Your task to perform on an android device: View the shopping cart on bestbuy.com. Search for razer blade on bestbuy.com, select the first entry, add it to the cart, then select checkout. Image 0: 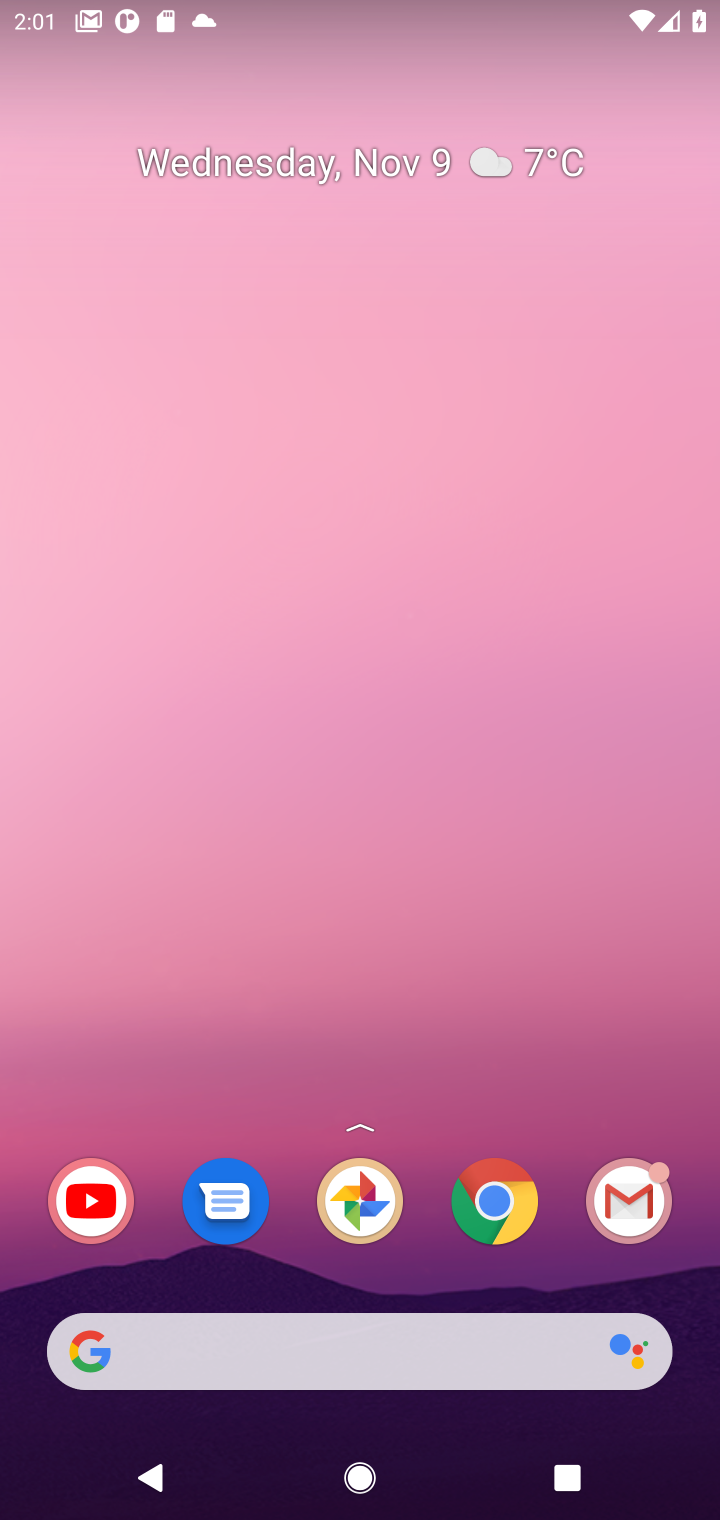
Step 0: click (348, 1341)
Your task to perform on an android device: View the shopping cart on bestbuy.com. Search for razer blade on bestbuy.com, select the first entry, add it to the cart, then select checkout. Image 1: 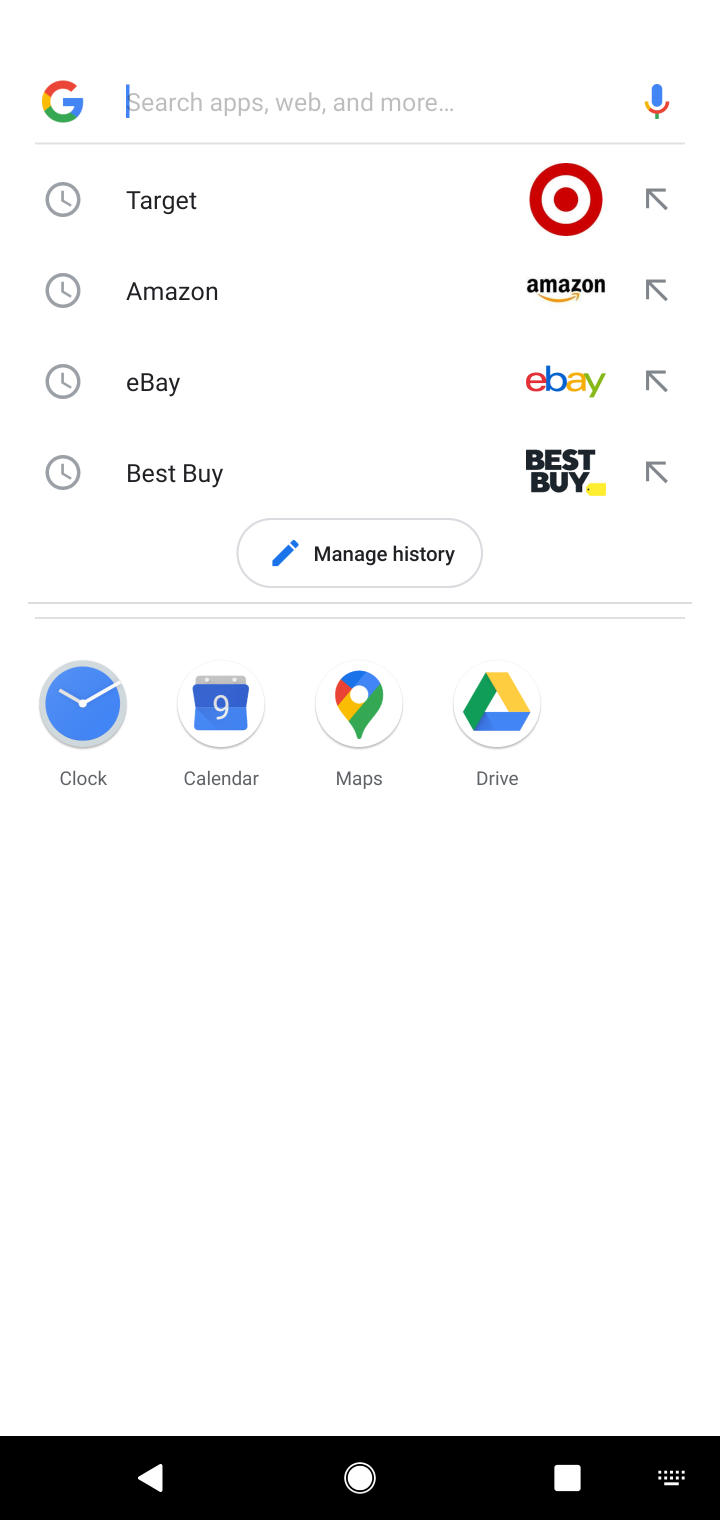
Step 1: click (201, 472)
Your task to perform on an android device: View the shopping cart on bestbuy.com. Search for razer blade on bestbuy.com, select the first entry, add it to the cart, then select checkout. Image 2: 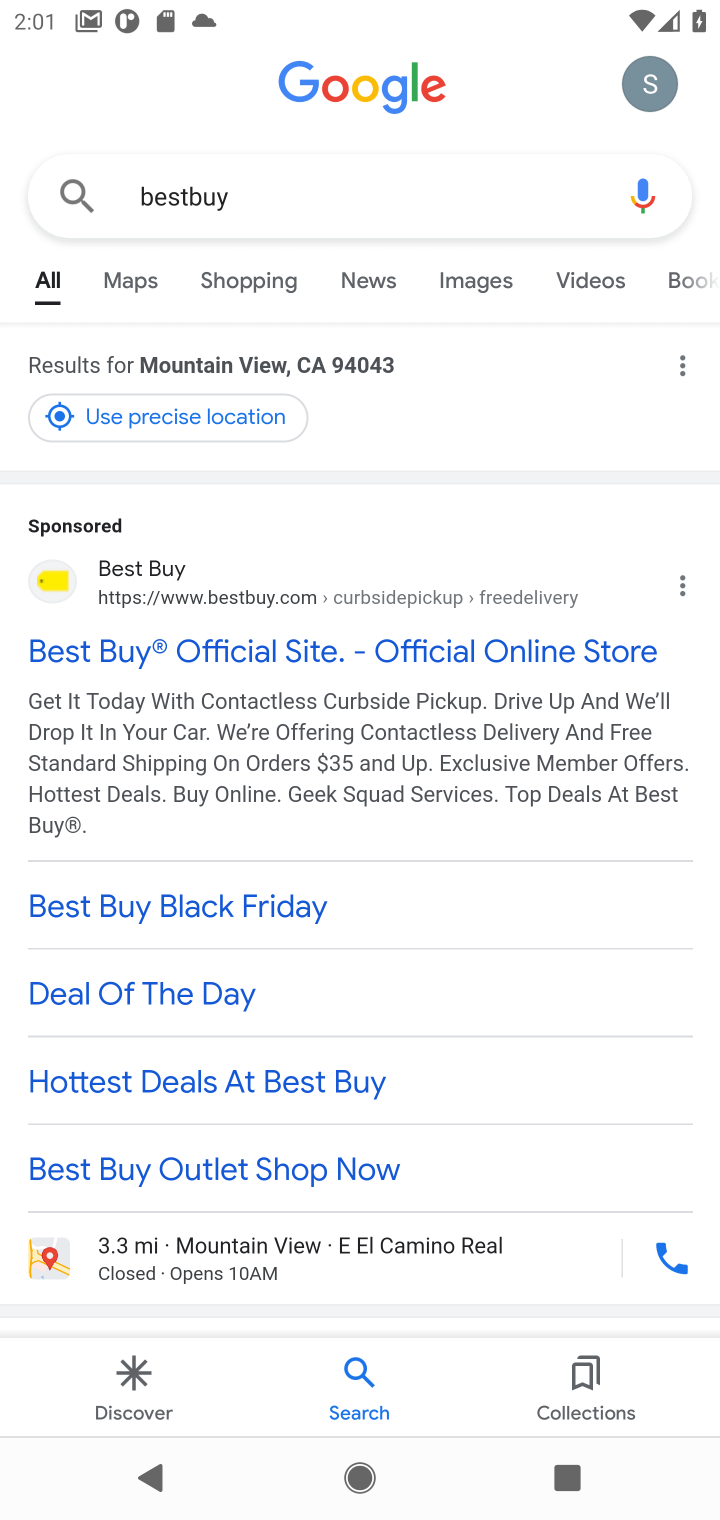
Step 2: click (143, 382)
Your task to perform on an android device: View the shopping cart on bestbuy.com. Search for razer blade on bestbuy.com, select the first entry, add it to the cart, then select checkout. Image 3: 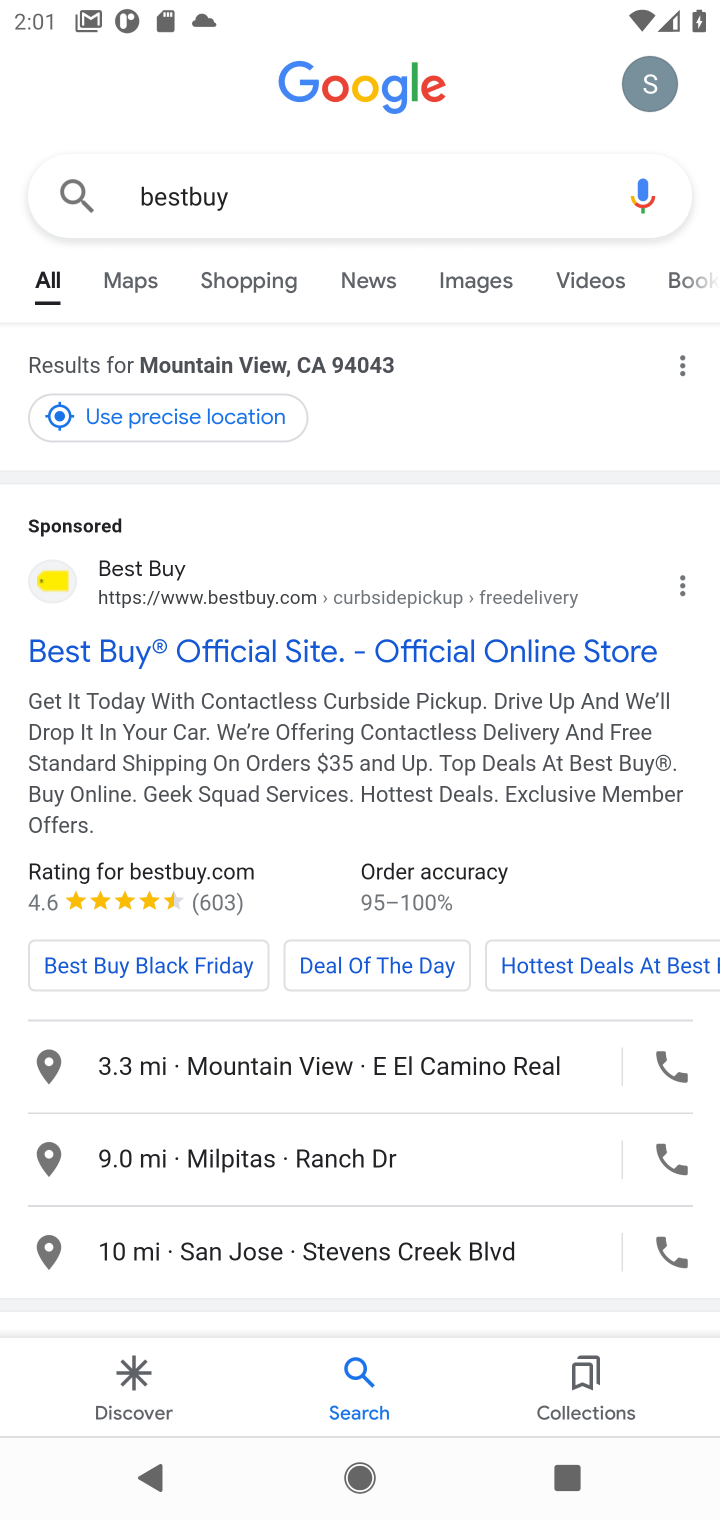
Step 3: click (164, 585)
Your task to perform on an android device: View the shopping cart on bestbuy.com. Search for razer blade on bestbuy.com, select the first entry, add it to the cart, then select checkout. Image 4: 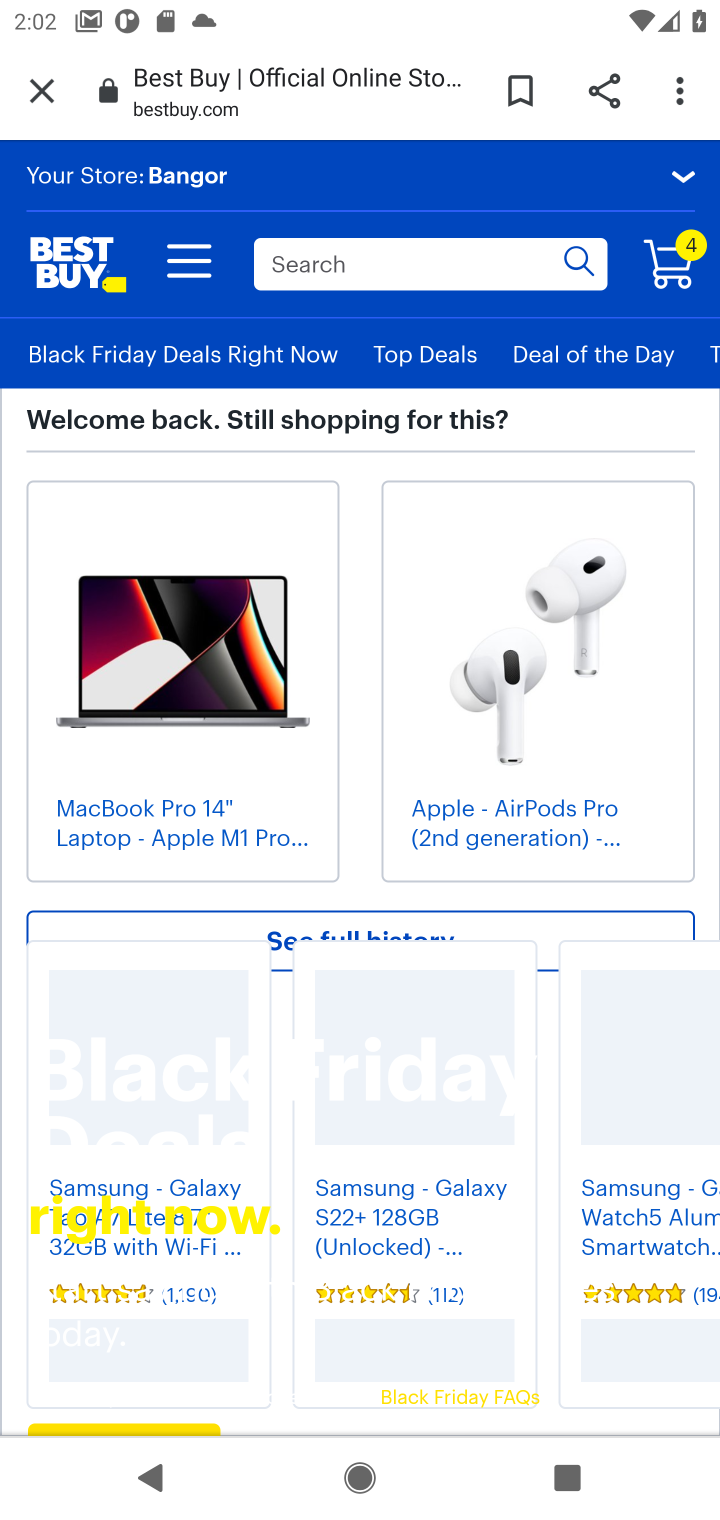
Step 4: click (315, 253)
Your task to perform on an android device: View the shopping cart on bestbuy.com. Search for razer blade on bestbuy.com, select the first entry, add it to the cart, then select checkout. Image 5: 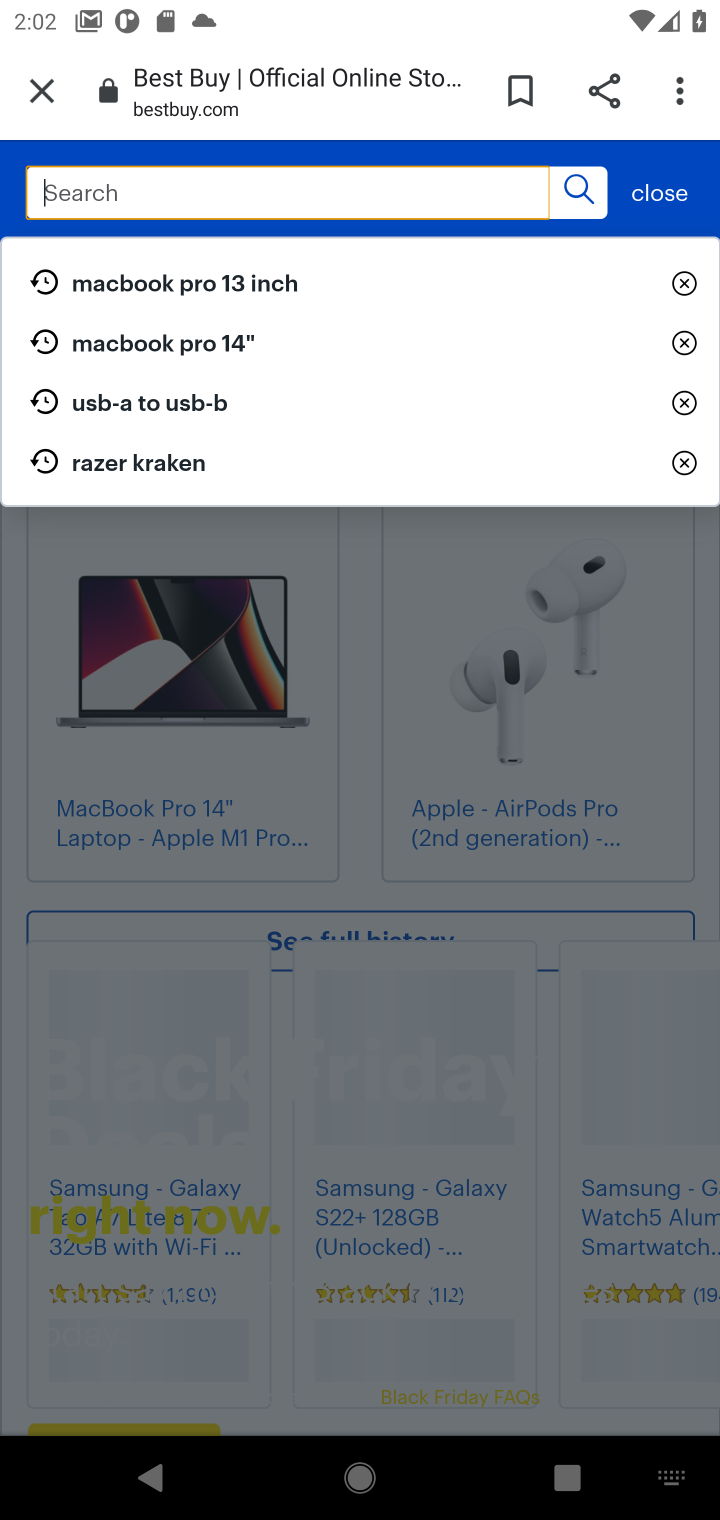
Step 5: type " razer blade"
Your task to perform on an android device: View the shopping cart on bestbuy.com. Search for razer blade on bestbuy.com, select the first entry, add it to the cart, then select checkout. Image 6: 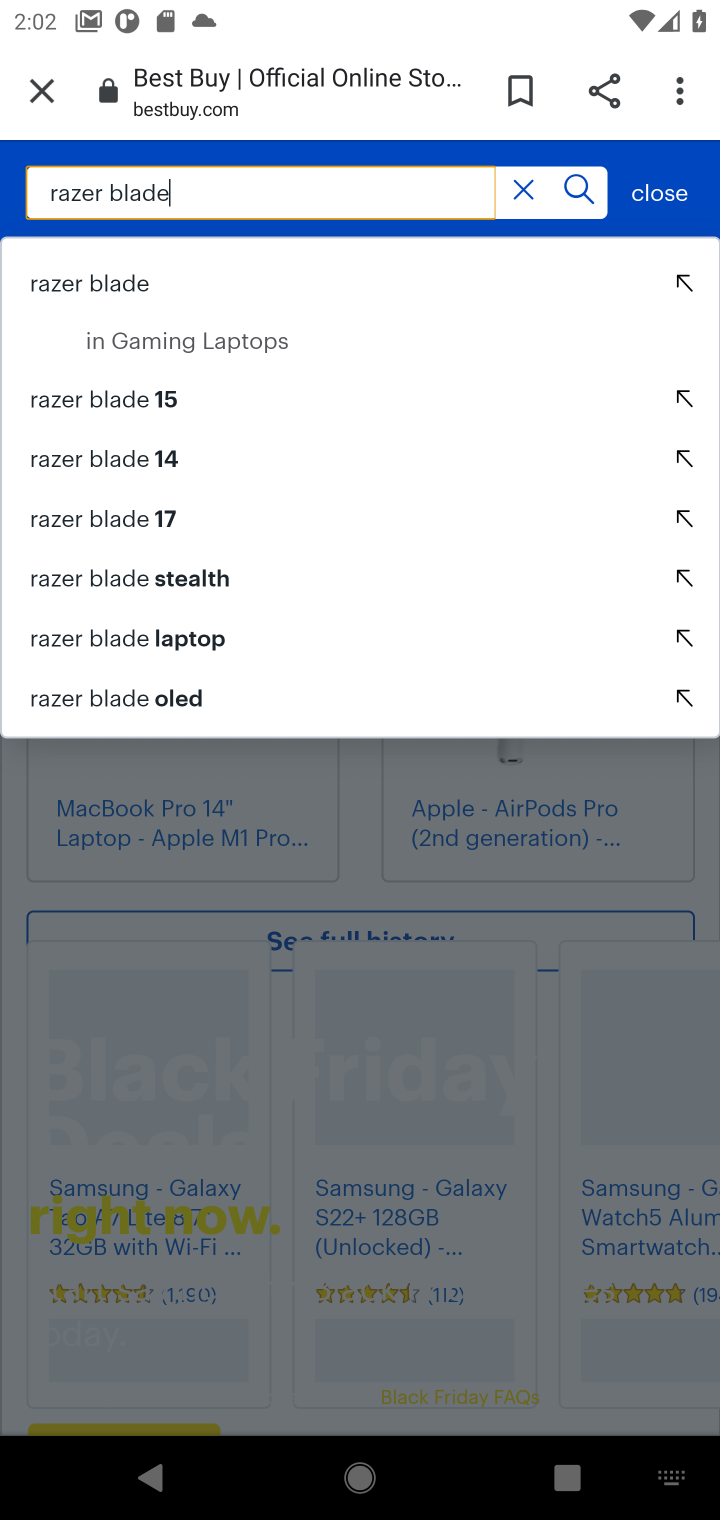
Step 6: click (90, 276)
Your task to perform on an android device: View the shopping cart on bestbuy.com. Search for razer blade on bestbuy.com, select the first entry, add it to the cart, then select checkout. Image 7: 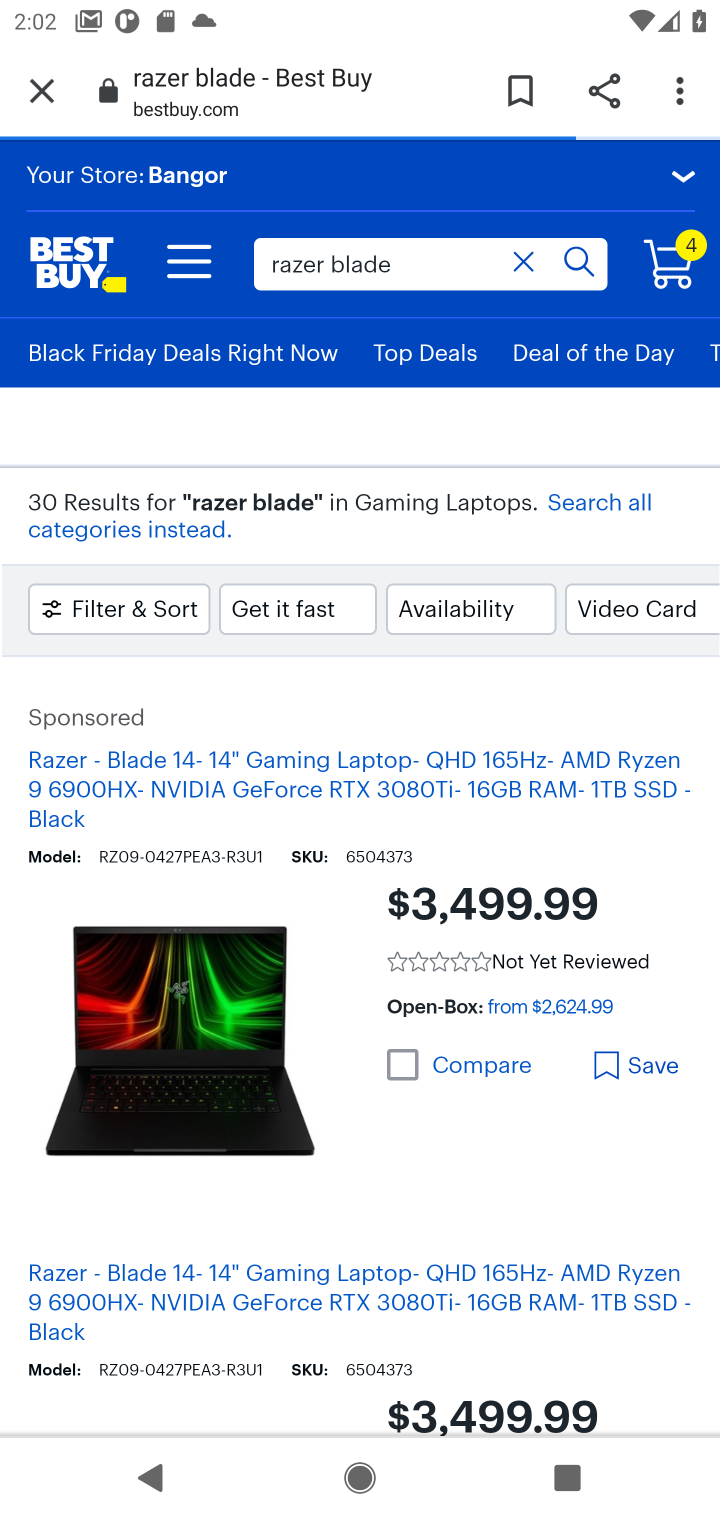
Step 7: click (257, 976)
Your task to perform on an android device: View the shopping cart on bestbuy.com. Search for razer blade on bestbuy.com, select the first entry, add it to the cart, then select checkout. Image 8: 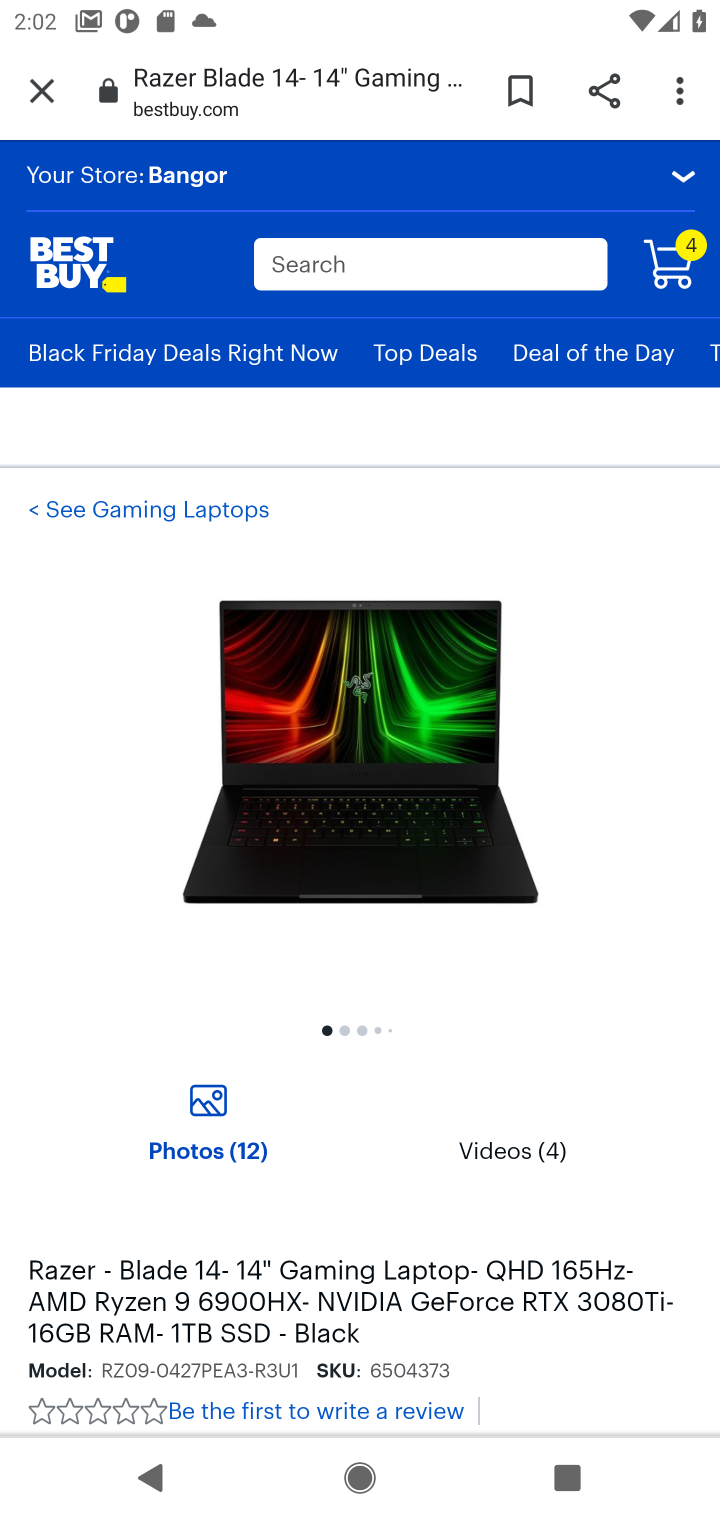
Step 8: drag from (370, 1075) to (369, 720)
Your task to perform on an android device: View the shopping cart on bestbuy.com. Search for razer blade on bestbuy.com, select the first entry, add it to the cart, then select checkout. Image 9: 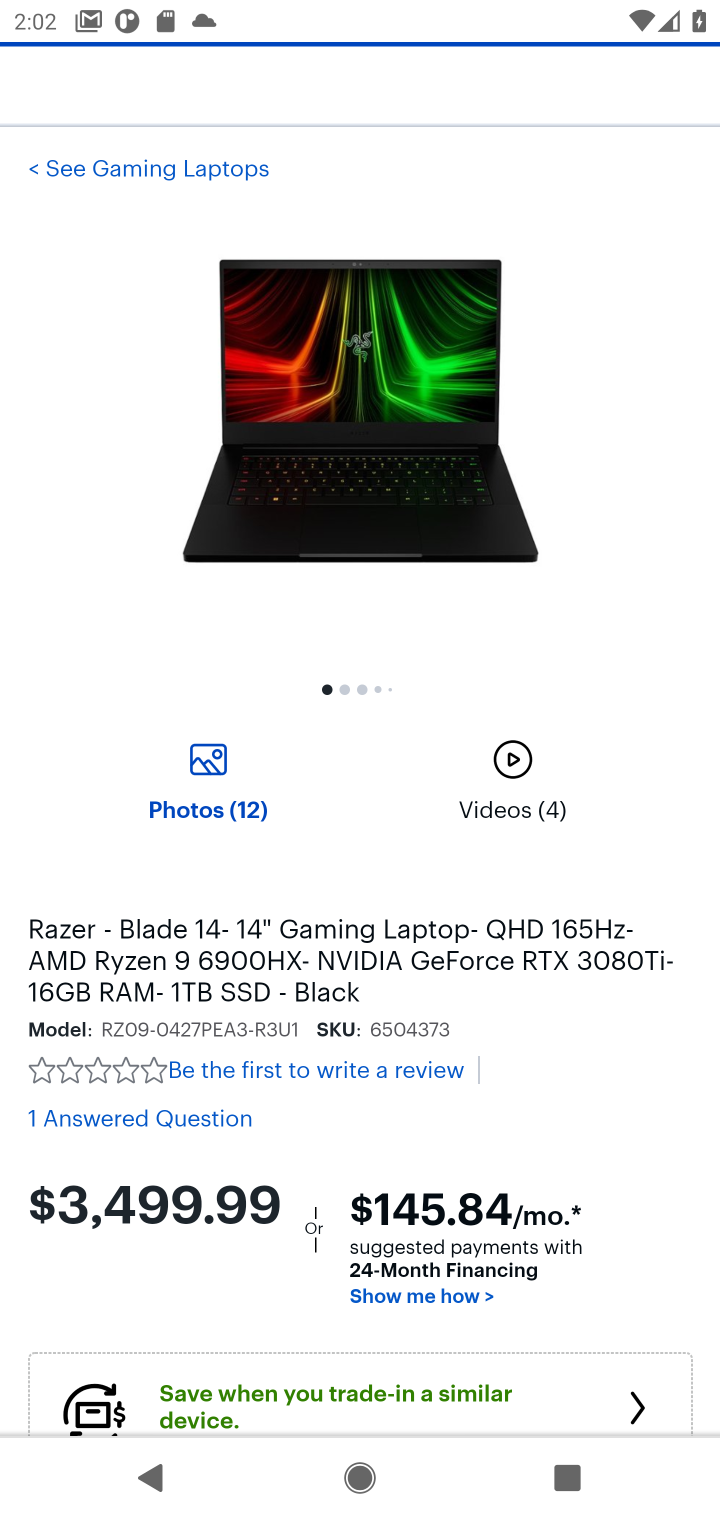
Step 9: drag from (419, 1132) to (419, 933)
Your task to perform on an android device: View the shopping cart on bestbuy.com. Search for razer blade on bestbuy.com, select the first entry, add it to the cart, then select checkout. Image 10: 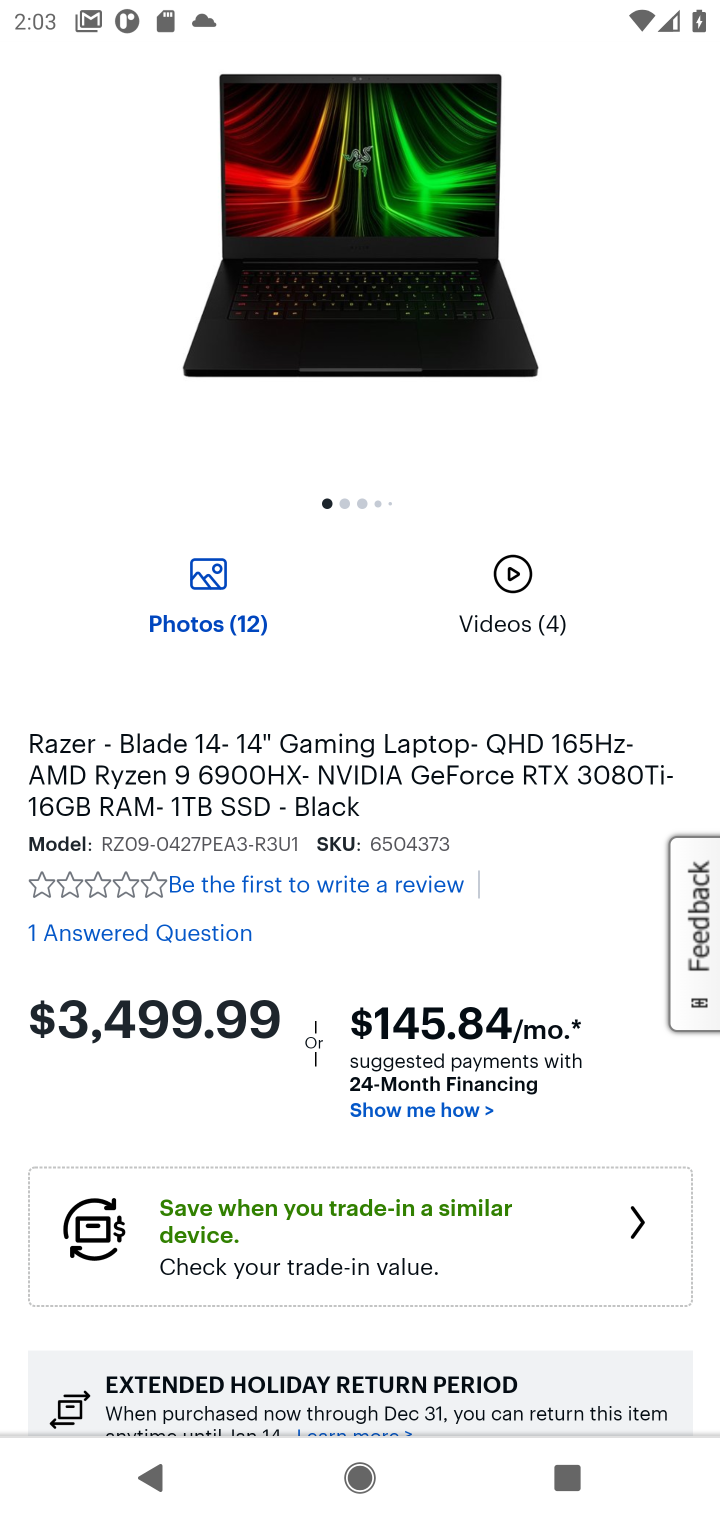
Step 10: drag from (419, 1219) to (431, 801)
Your task to perform on an android device: View the shopping cart on bestbuy.com. Search for razer blade on bestbuy.com, select the first entry, add it to the cart, then select checkout. Image 11: 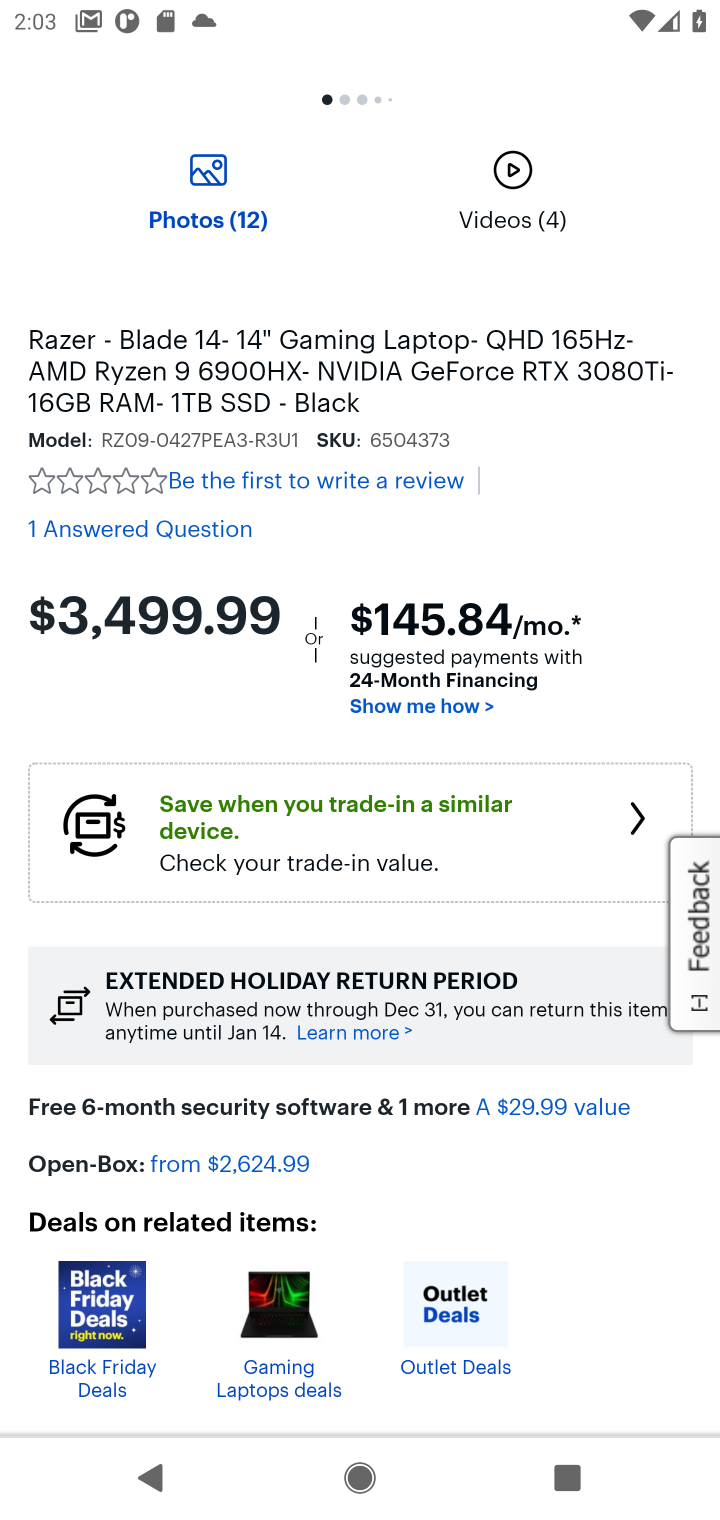
Step 11: drag from (400, 1100) to (407, 724)
Your task to perform on an android device: View the shopping cart on bestbuy.com. Search for razer blade on bestbuy.com, select the first entry, add it to the cart, then select checkout. Image 12: 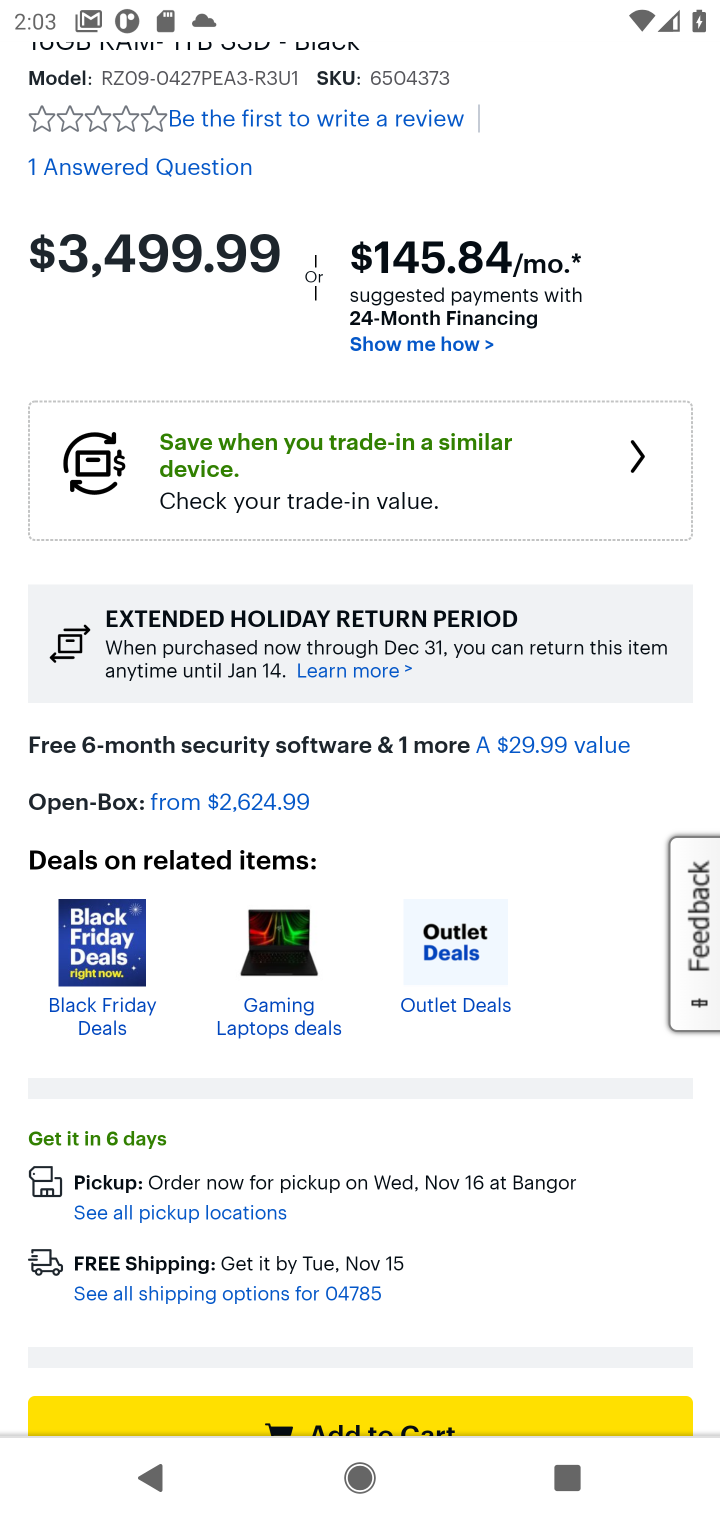
Step 12: click (435, 714)
Your task to perform on an android device: View the shopping cart on bestbuy.com. Search for razer blade on bestbuy.com, select the first entry, add it to the cart, then select checkout. Image 13: 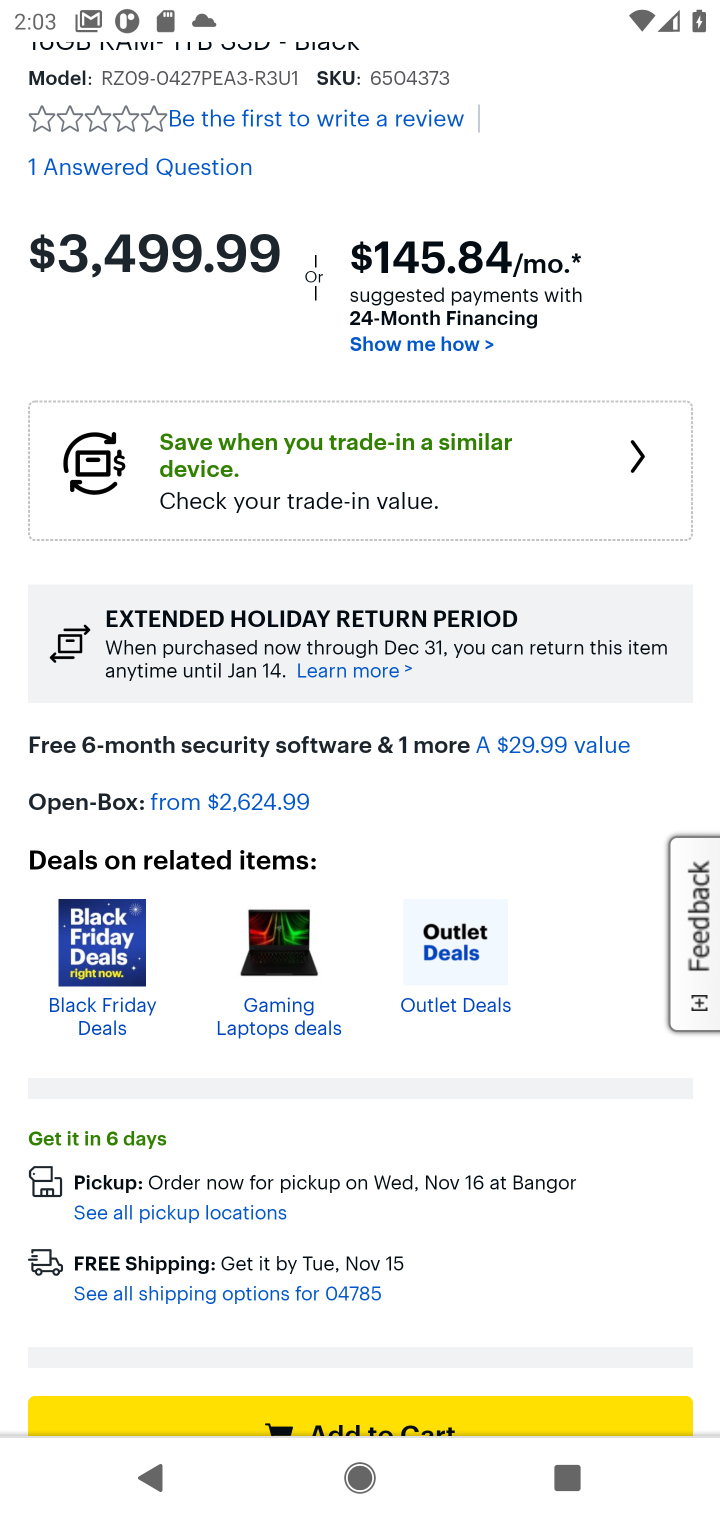
Step 13: click (500, 963)
Your task to perform on an android device: View the shopping cart on bestbuy.com. Search for razer blade on bestbuy.com, select the first entry, add it to the cart, then select checkout. Image 14: 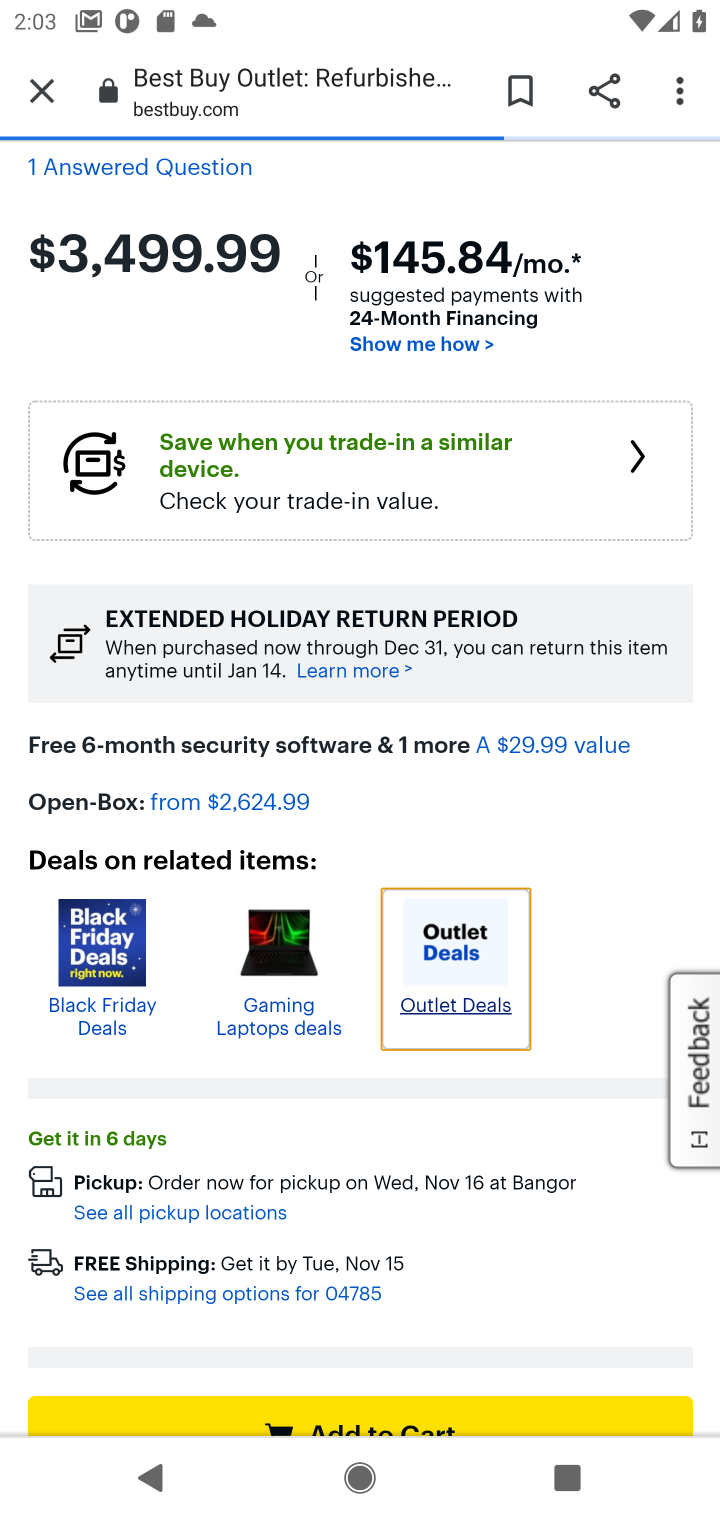
Step 14: click (337, 1420)
Your task to perform on an android device: View the shopping cart on bestbuy.com. Search for razer blade on bestbuy.com, select the first entry, add it to the cart, then select checkout. Image 15: 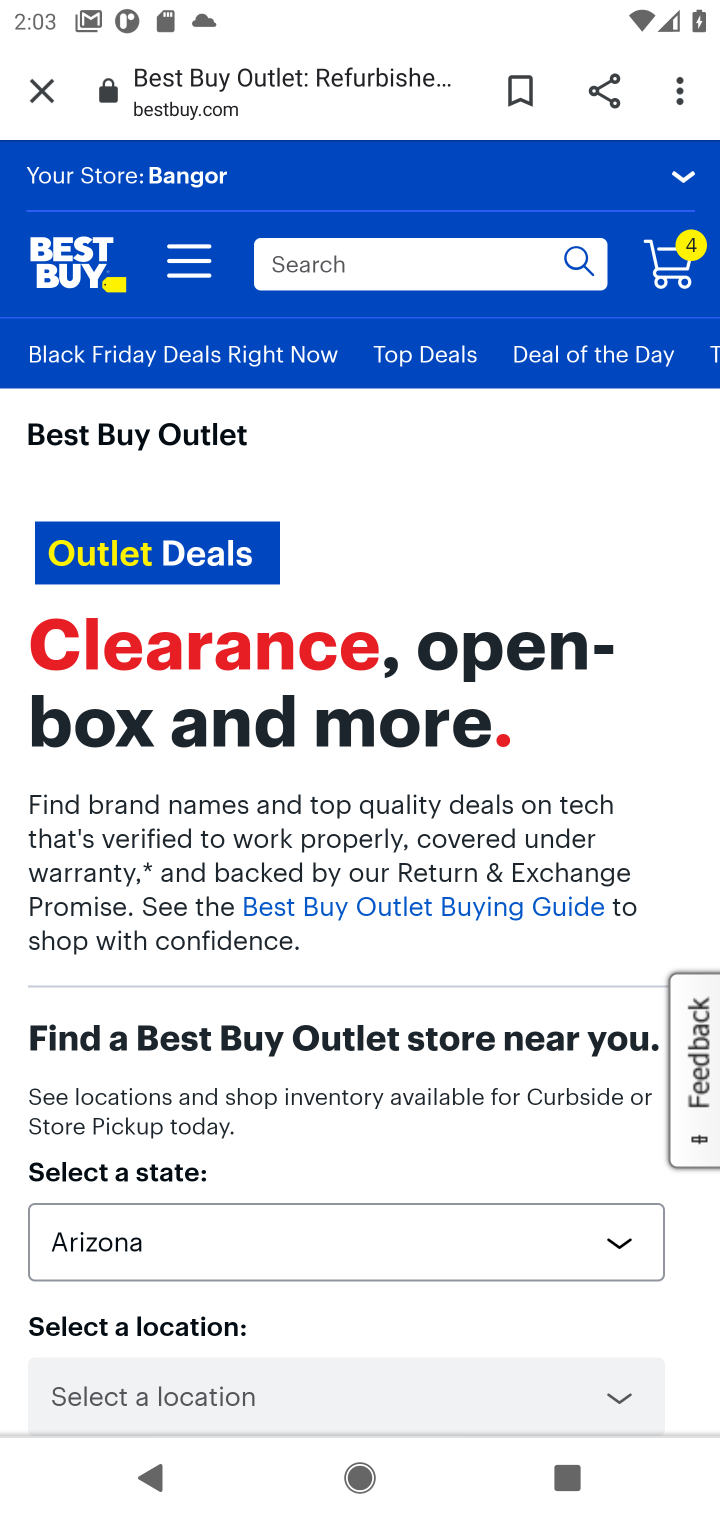
Step 15: click (679, 271)
Your task to perform on an android device: View the shopping cart on bestbuy.com. Search for razer blade on bestbuy.com, select the first entry, add it to the cart, then select checkout. Image 16: 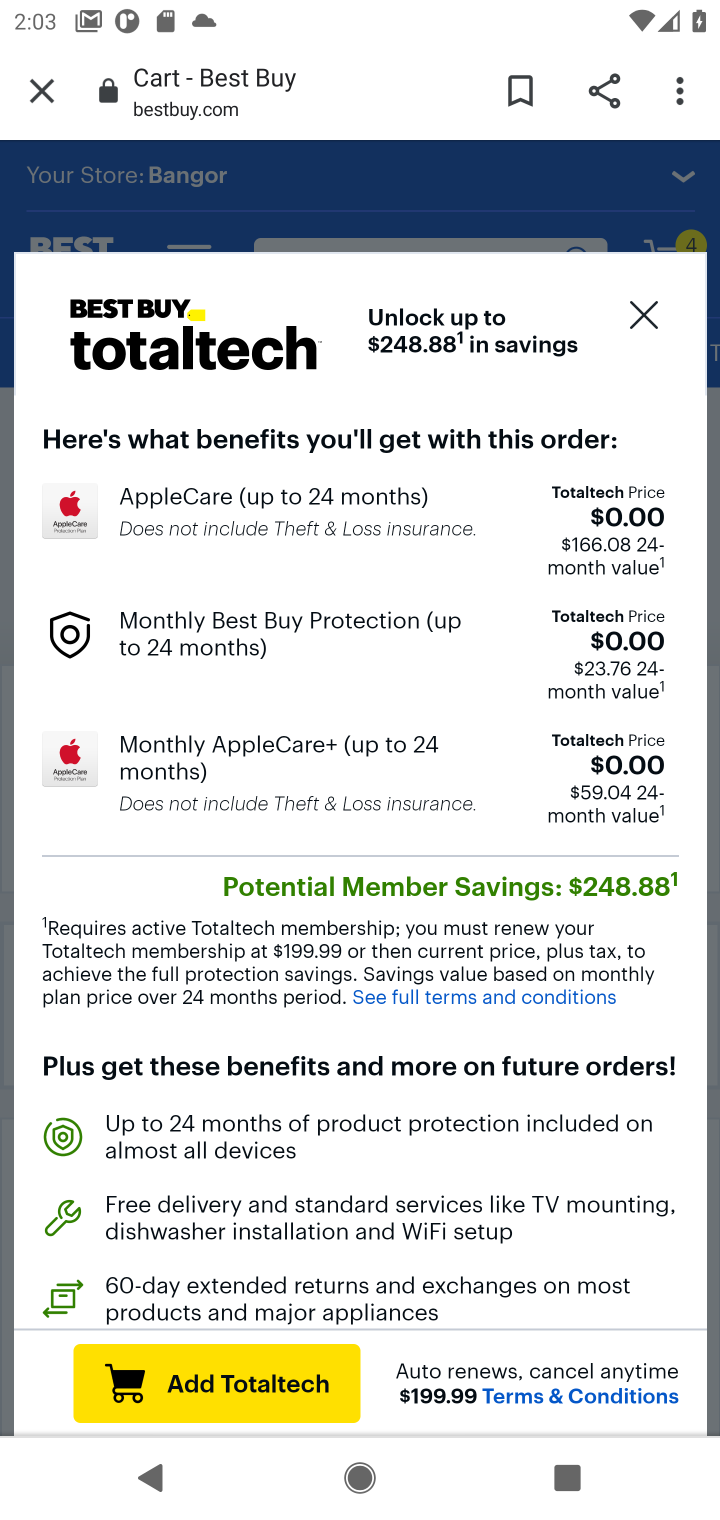
Step 16: click (643, 320)
Your task to perform on an android device: View the shopping cart on bestbuy.com. Search for razer blade on bestbuy.com, select the first entry, add it to the cart, then select checkout. Image 17: 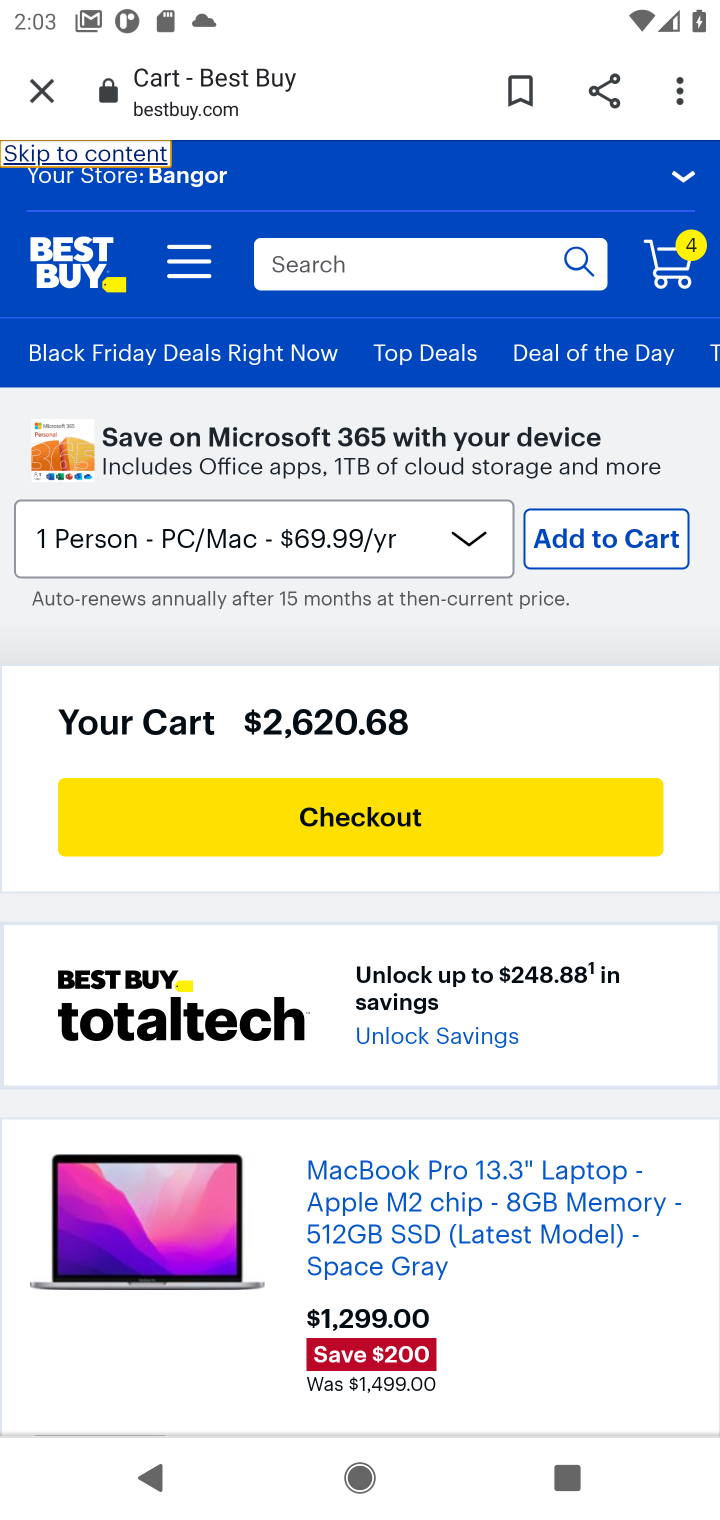
Step 17: click (370, 803)
Your task to perform on an android device: View the shopping cart on bestbuy.com. Search for razer blade on bestbuy.com, select the first entry, add it to the cart, then select checkout. Image 18: 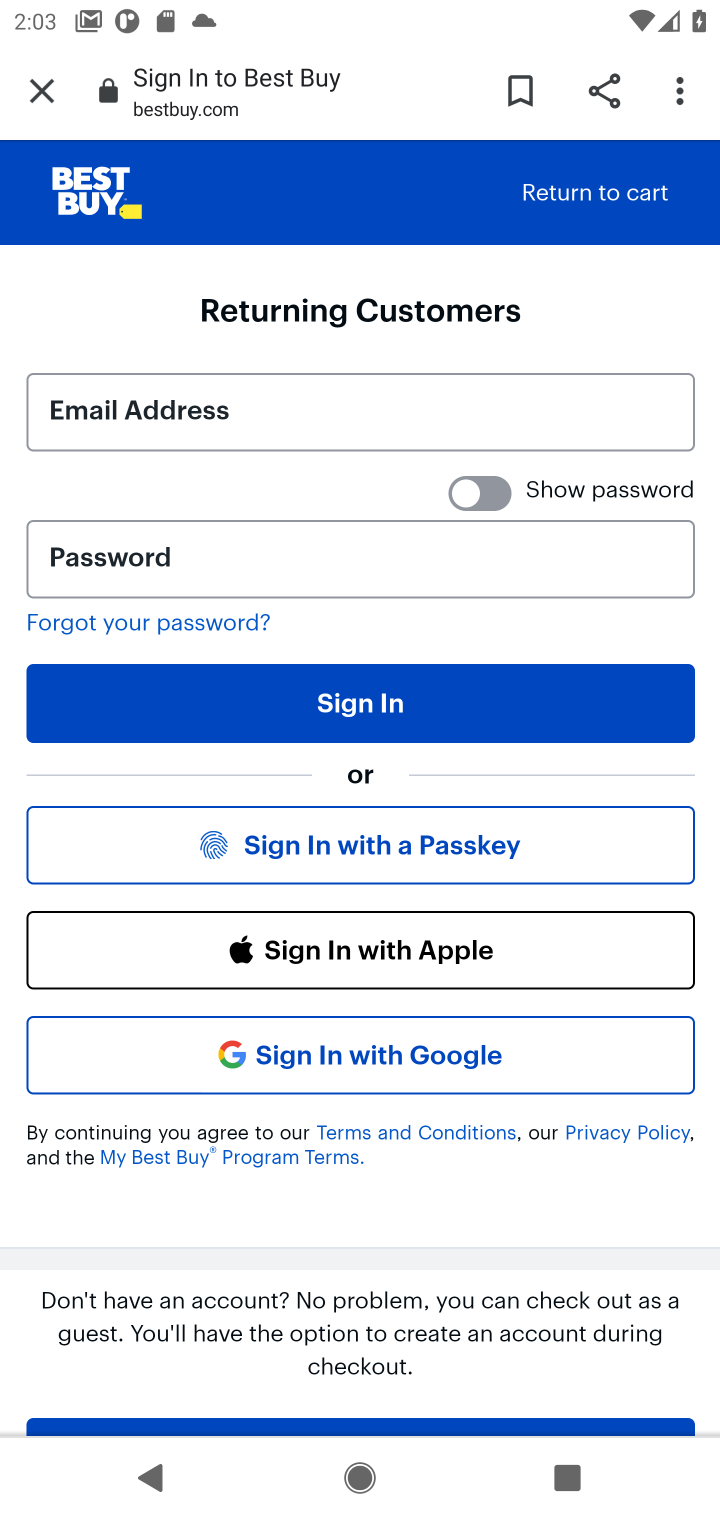
Step 18: task complete